Your task to perform on an android device: delete a single message in the gmail app Image 0: 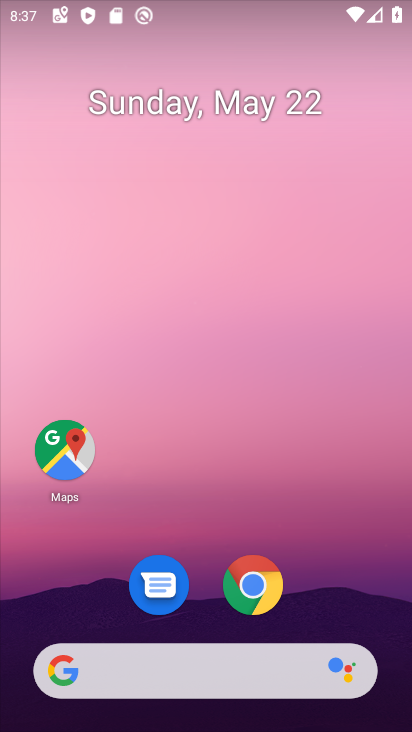
Step 0: drag from (206, 500) to (177, 34)
Your task to perform on an android device: delete a single message in the gmail app Image 1: 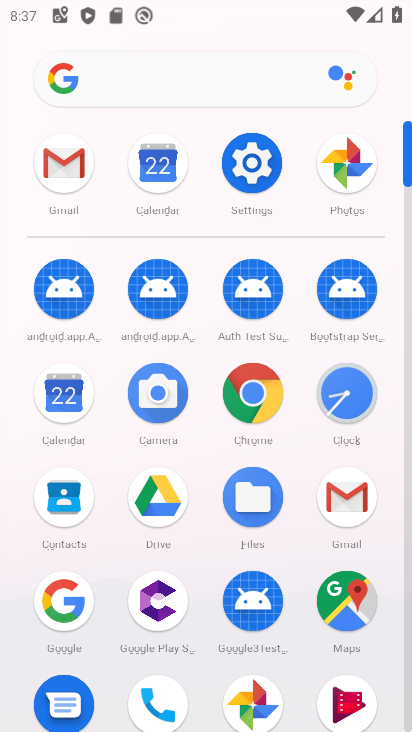
Step 1: click (58, 154)
Your task to perform on an android device: delete a single message in the gmail app Image 2: 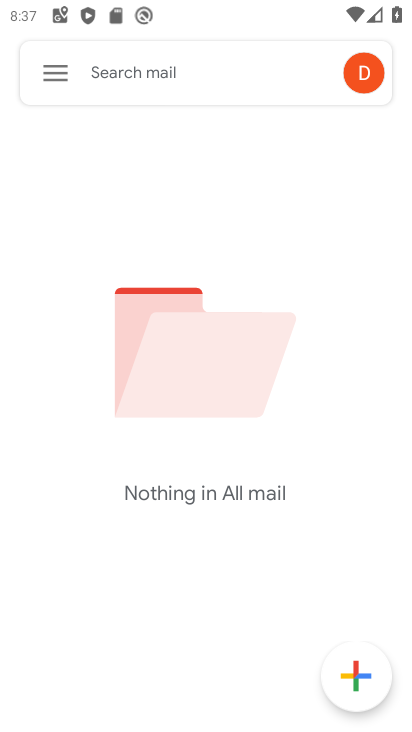
Step 2: task complete